Your task to perform on an android device: change timer sound Image 0: 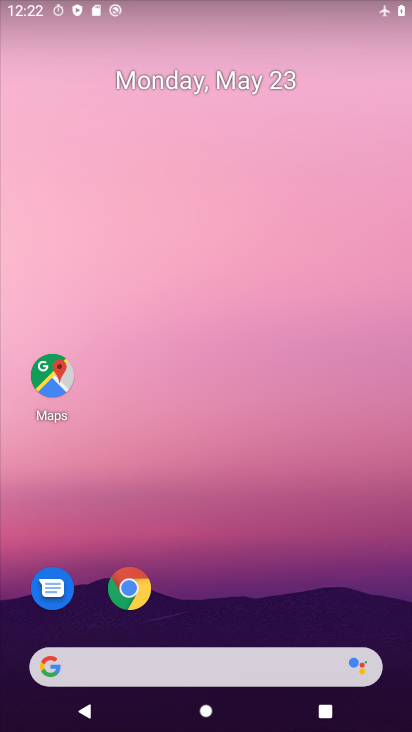
Step 0: drag from (216, 626) to (185, 138)
Your task to perform on an android device: change timer sound Image 1: 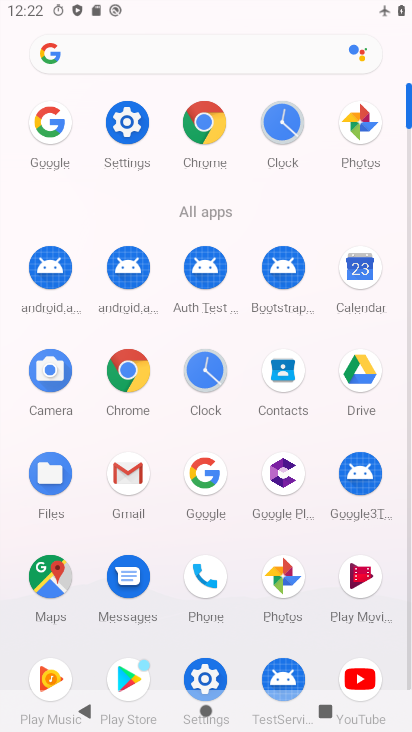
Step 1: click (283, 122)
Your task to perform on an android device: change timer sound Image 2: 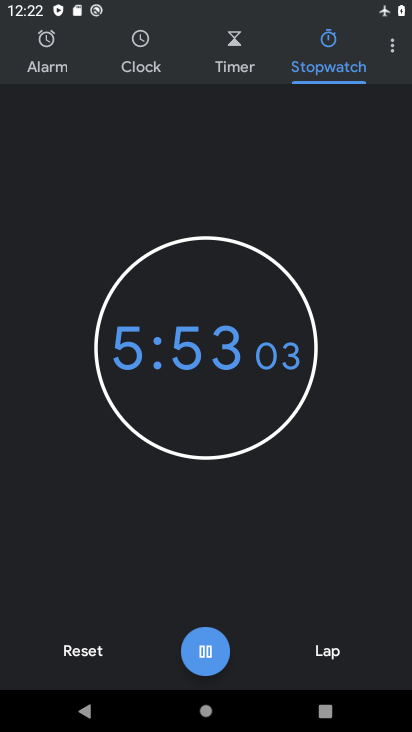
Step 2: click (393, 54)
Your task to perform on an android device: change timer sound Image 3: 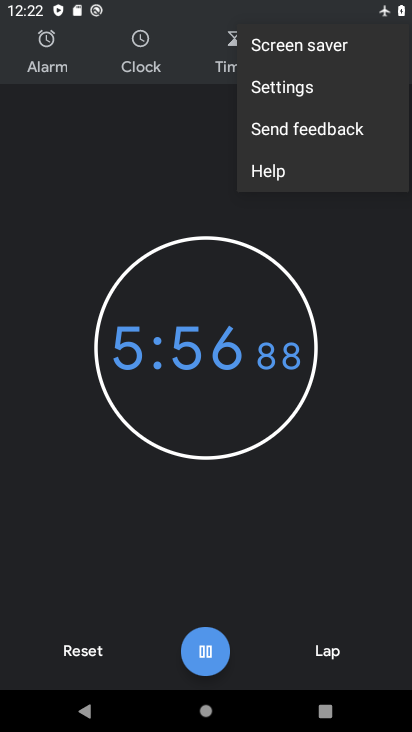
Step 3: click (274, 94)
Your task to perform on an android device: change timer sound Image 4: 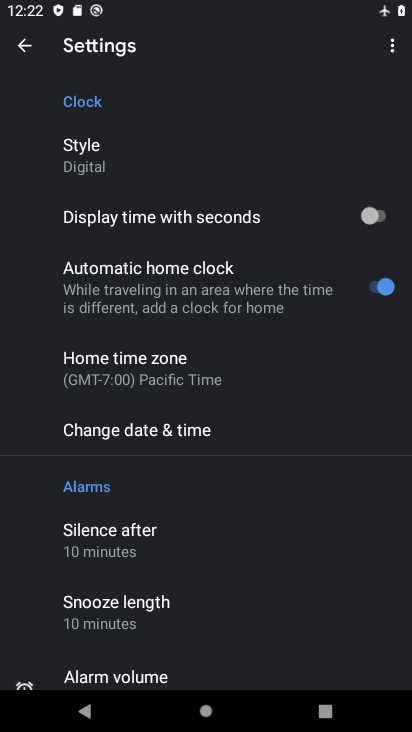
Step 4: drag from (147, 636) to (156, 266)
Your task to perform on an android device: change timer sound Image 5: 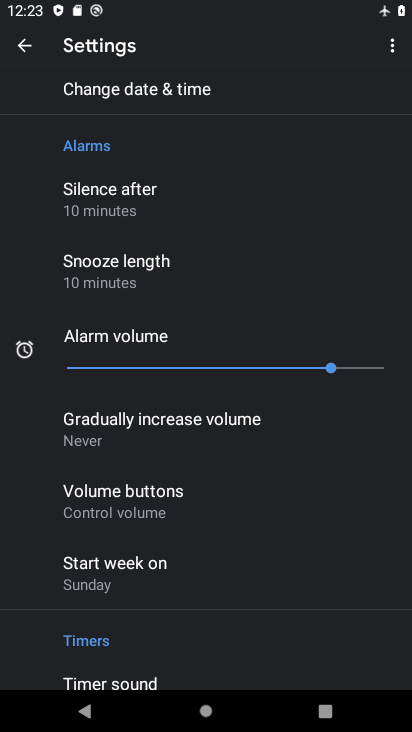
Step 5: drag from (153, 637) to (160, 307)
Your task to perform on an android device: change timer sound Image 6: 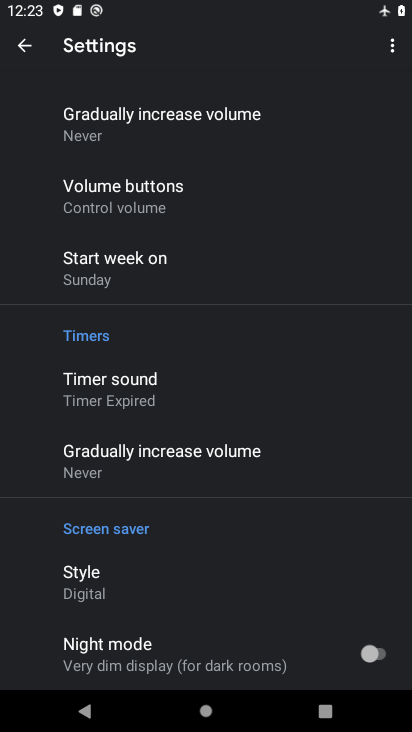
Step 6: click (121, 394)
Your task to perform on an android device: change timer sound Image 7: 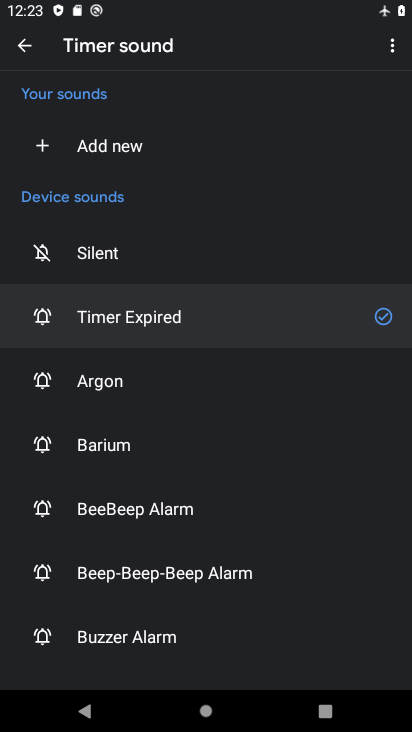
Step 7: click (105, 502)
Your task to perform on an android device: change timer sound Image 8: 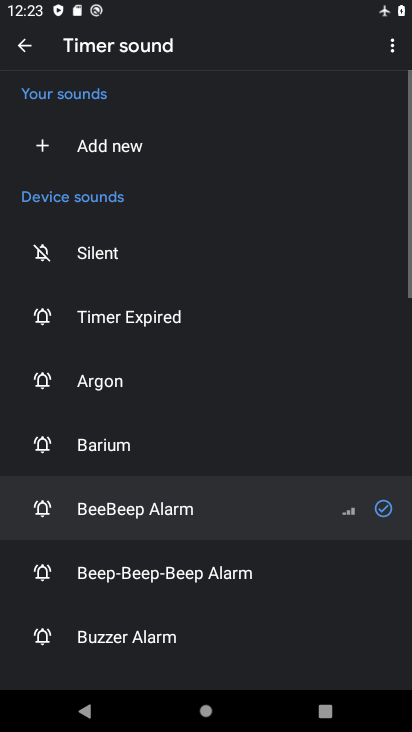
Step 8: task complete